Your task to perform on an android device: make emails show in primary in the gmail app Image 0: 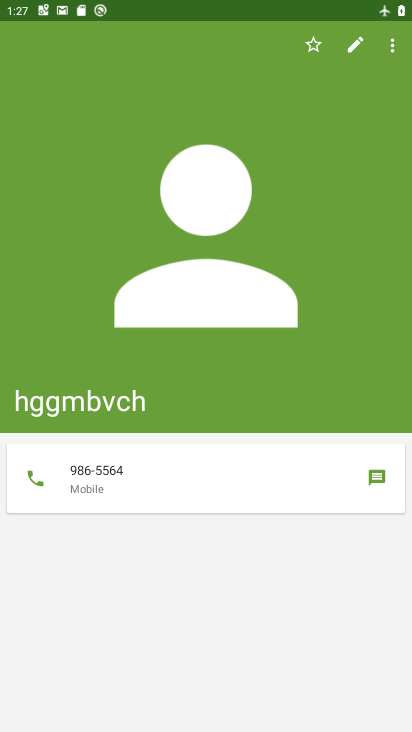
Step 0: press home button
Your task to perform on an android device: make emails show in primary in the gmail app Image 1: 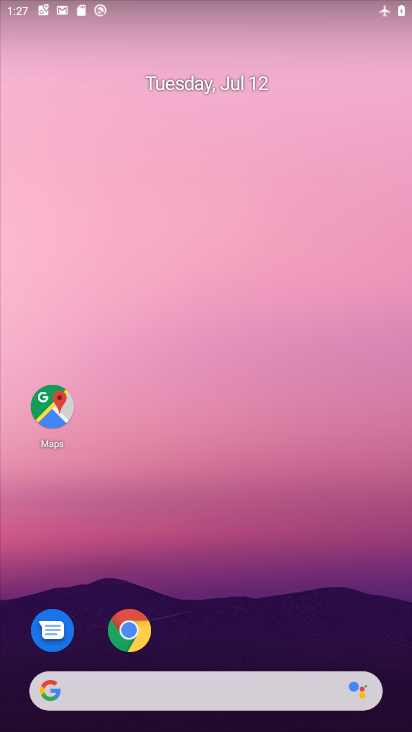
Step 1: drag from (287, 548) to (266, 206)
Your task to perform on an android device: make emails show in primary in the gmail app Image 2: 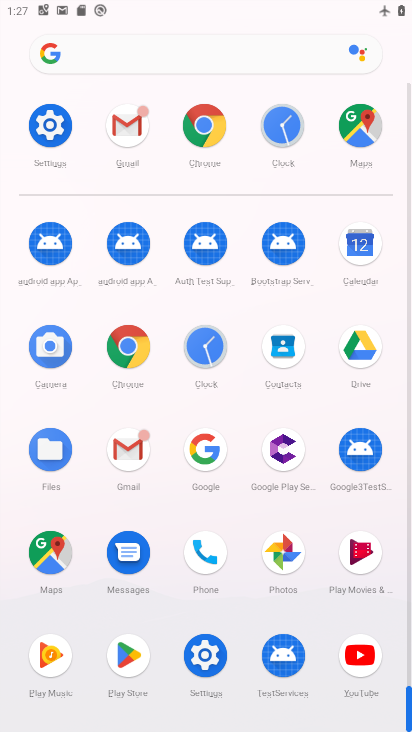
Step 2: click (130, 441)
Your task to perform on an android device: make emails show in primary in the gmail app Image 3: 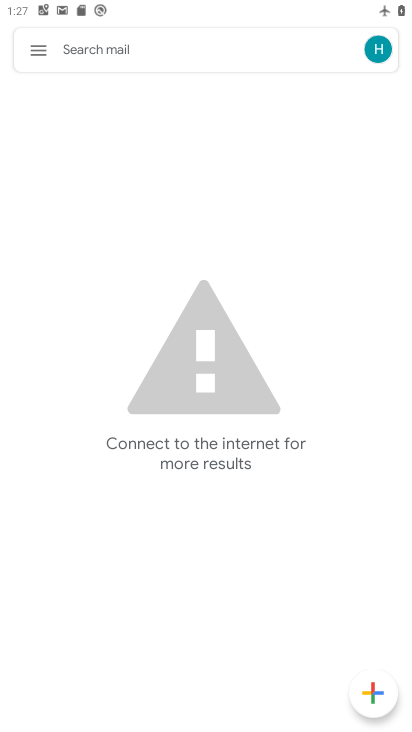
Step 3: click (47, 43)
Your task to perform on an android device: make emails show in primary in the gmail app Image 4: 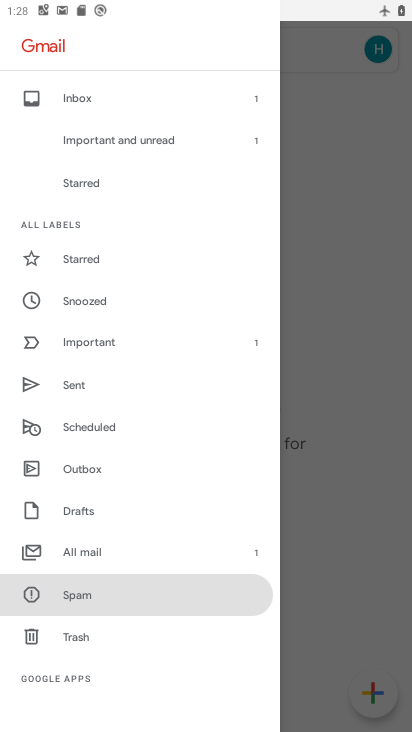
Step 4: task complete